Your task to perform on an android device: toggle priority inbox in the gmail app Image 0: 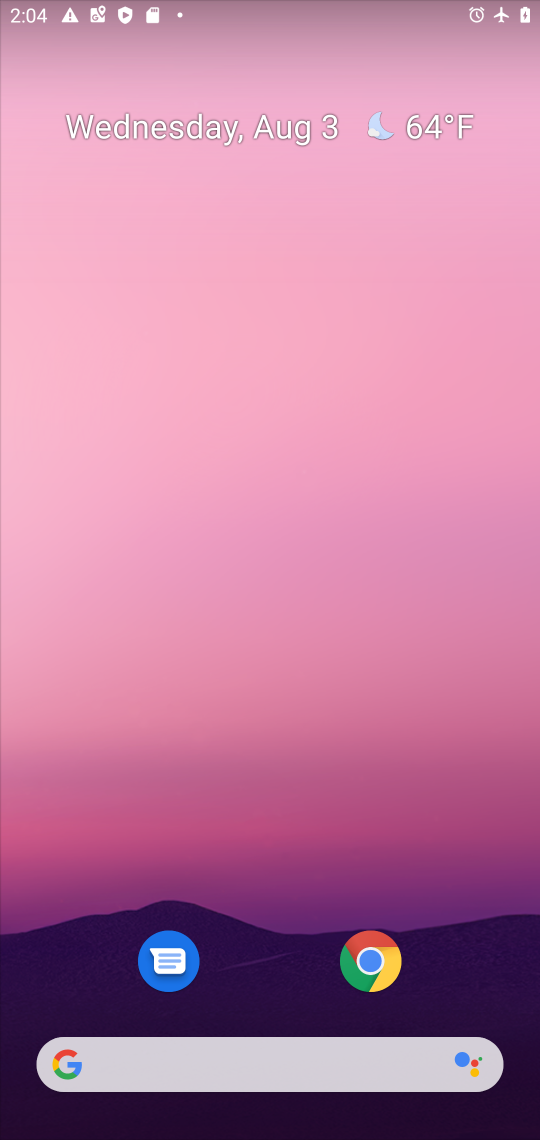
Step 0: drag from (298, 1006) to (286, 94)
Your task to perform on an android device: toggle priority inbox in the gmail app Image 1: 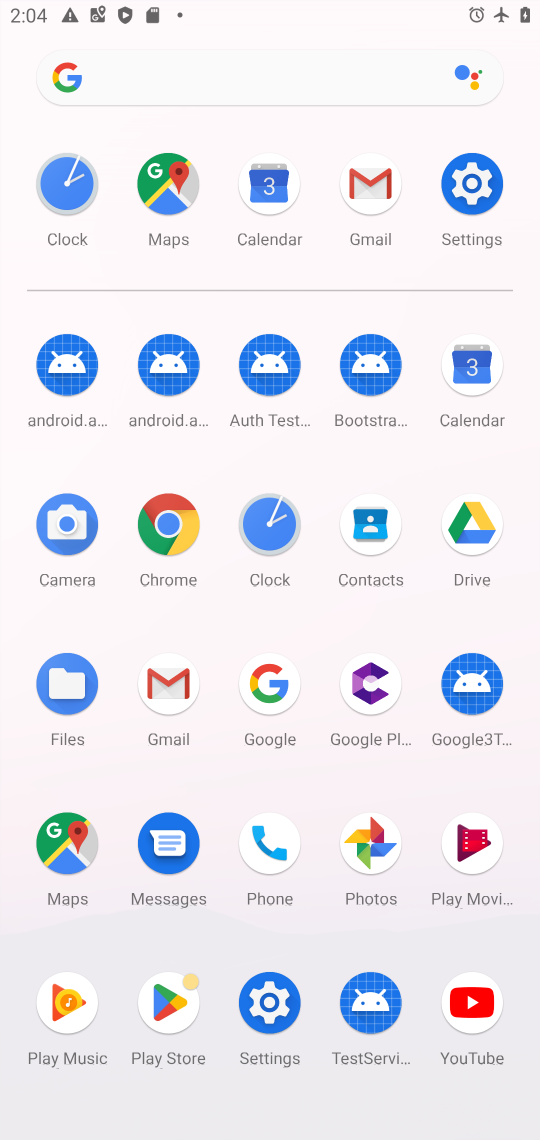
Step 1: click (358, 180)
Your task to perform on an android device: toggle priority inbox in the gmail app Image 2: 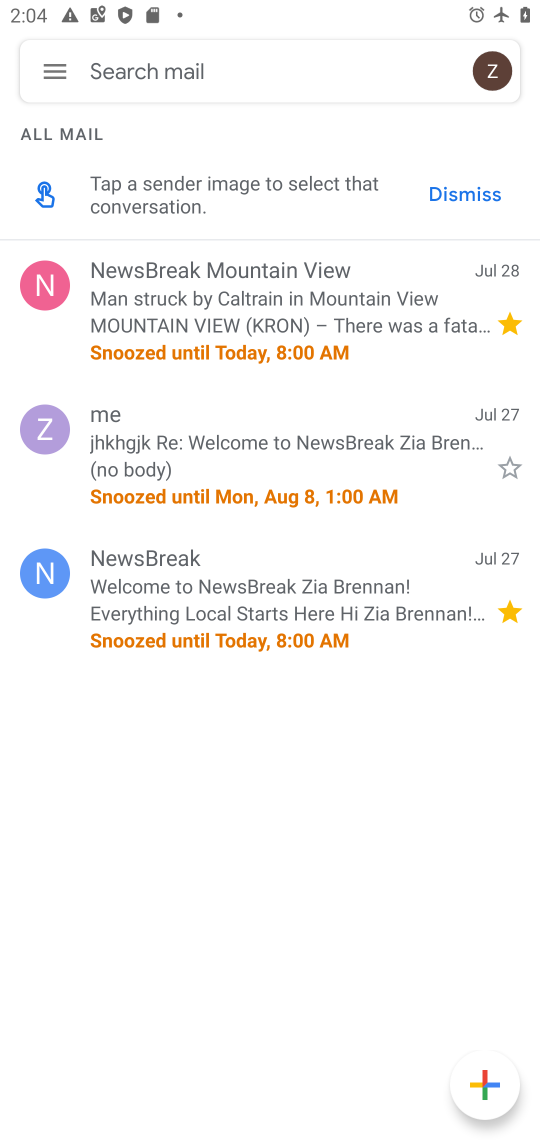
Step 2: click (58, 74)
Your task to perform on an android device: toggle priority inbox in the gmail app Image 3: 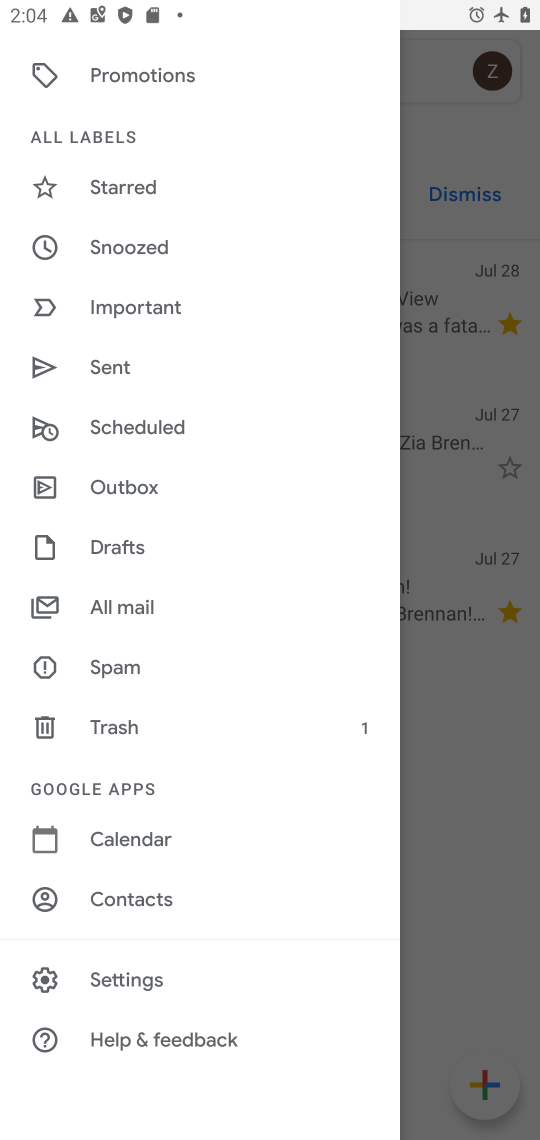
Step 3: click (117, 981)
Your task to perform on an android device: toggle priority inbox in the gmail app Image 4: 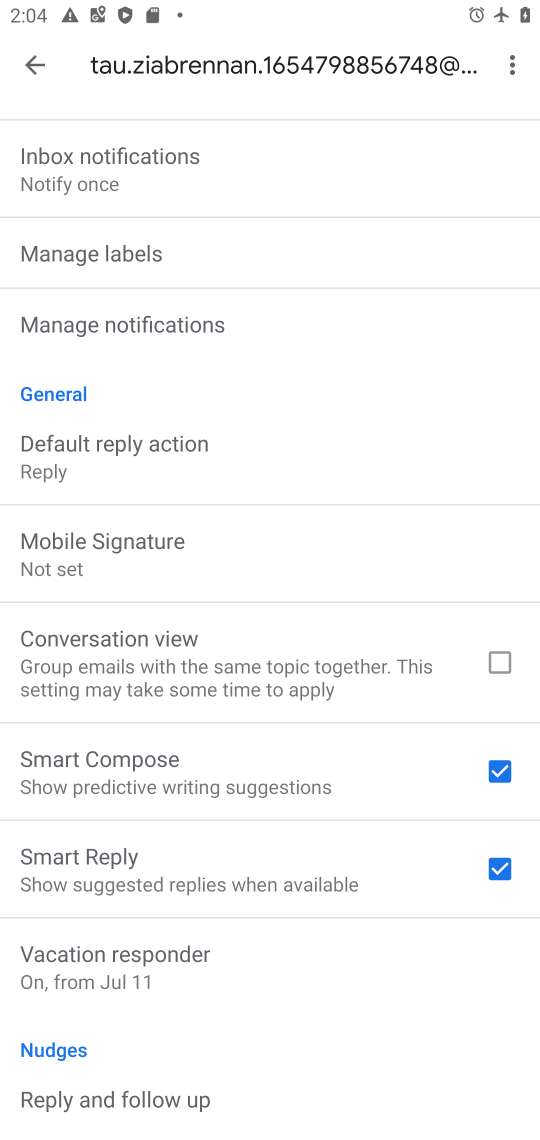
Step 4: drag from (280, 363) to (297, 931)
Your task to perform on an android device: toggle priority inbox in the gmail app Image 5: 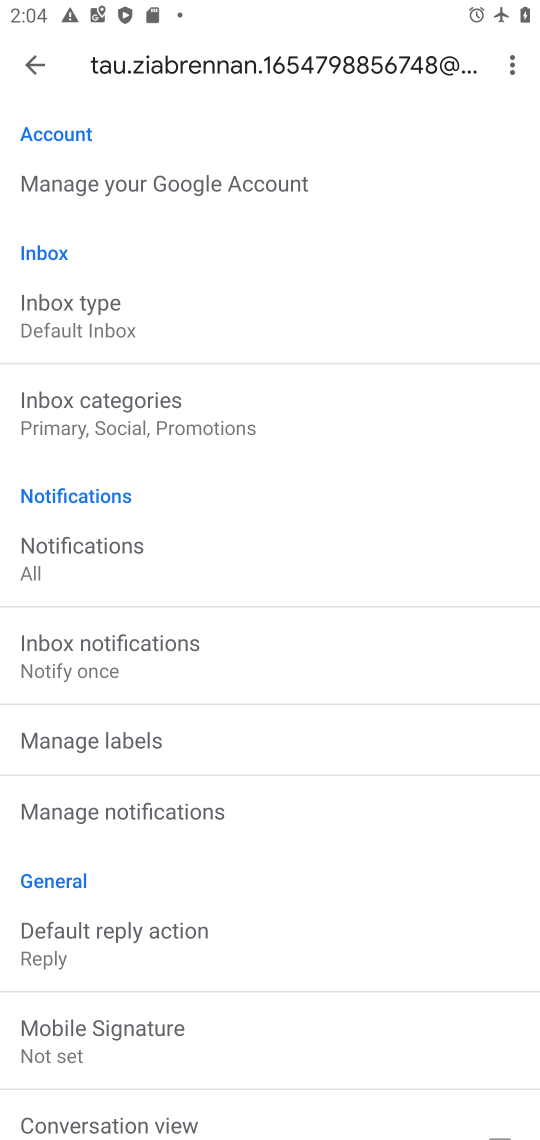
Step 5: click (63, 310)
Your task to perform on an android device: toggle priority inbox in the gmail app Image 6: 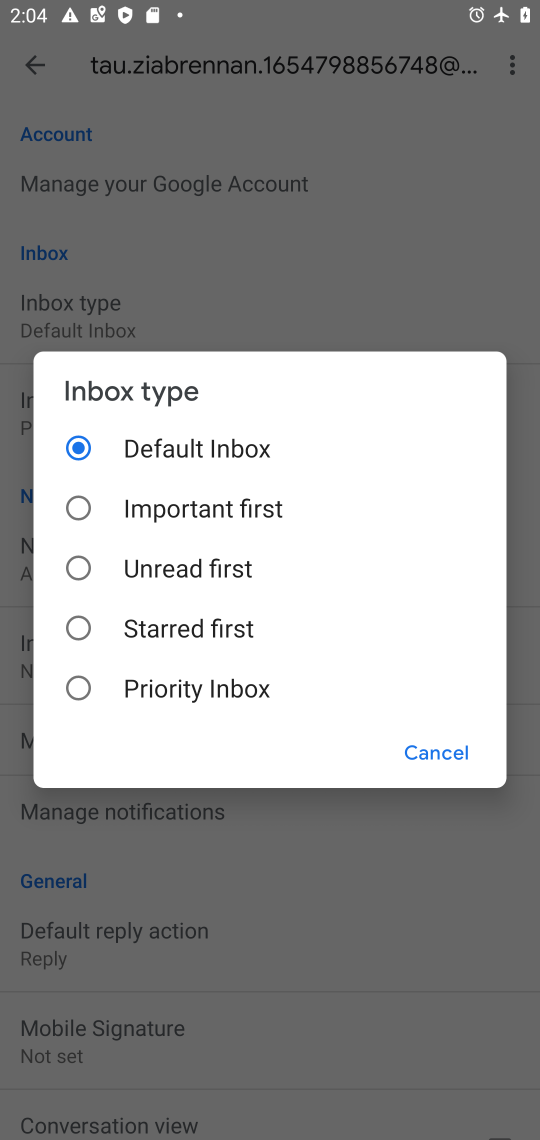
Step 6: click (81, 691)
Your task to perform on an android device: toggle priority inbox in the gmail app Image 7: 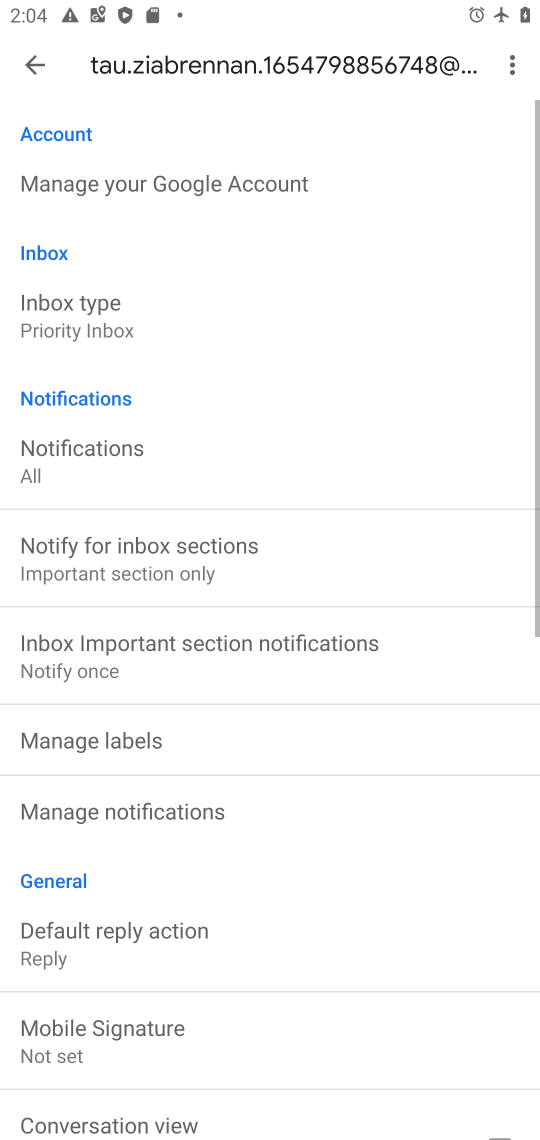
Step 7: task complete